Your task to perform on an android device: See recent photos Image 0: 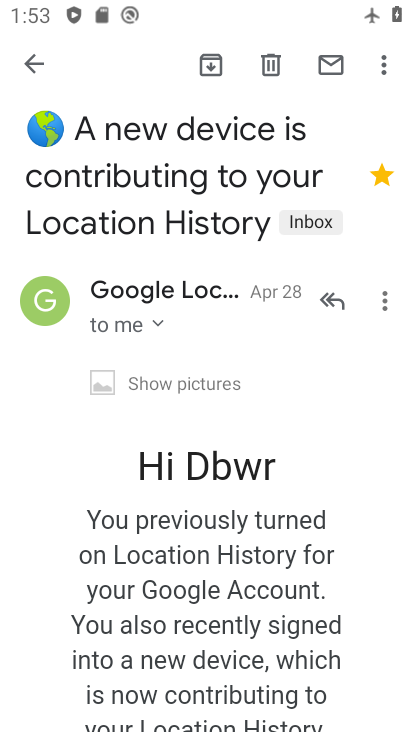
Step 0: press home button
Your task to perform on an android device: See recent photos Image 1: 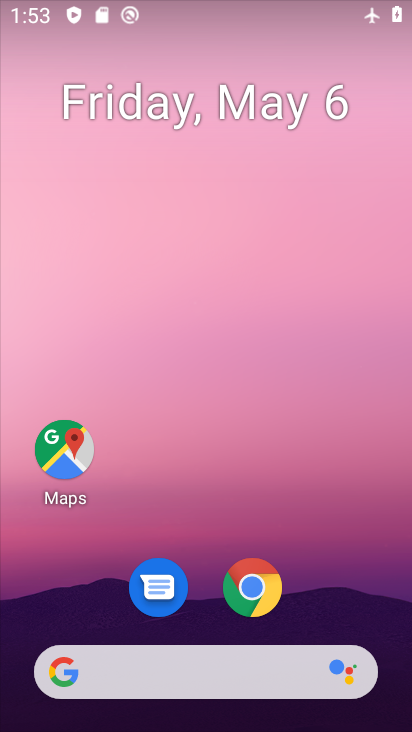
Step 1: drag from (312, 617) to (406, 13)
Your task to perform on an android device: See recent photos Image 2: 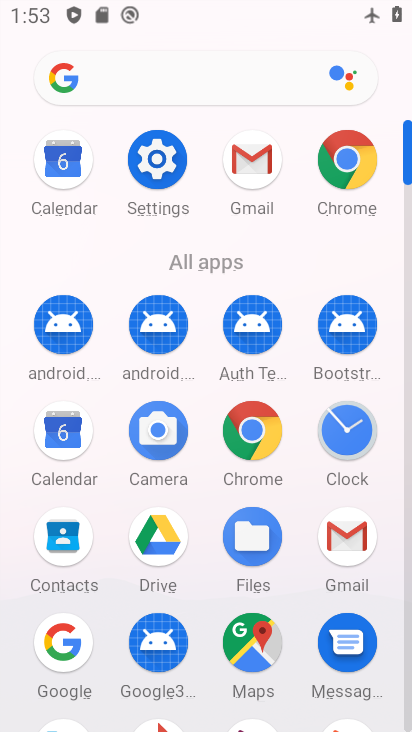
Step 2: drag from (208, 608) to (223, 356)
Your task to perform on an android device: See recent photos Image 3: 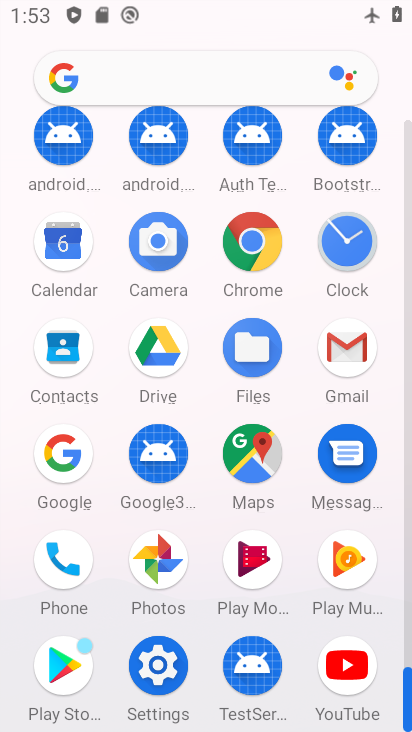
Step 3: click (150, 572)
Your task to perform on an android device: See recent photos Image 4: 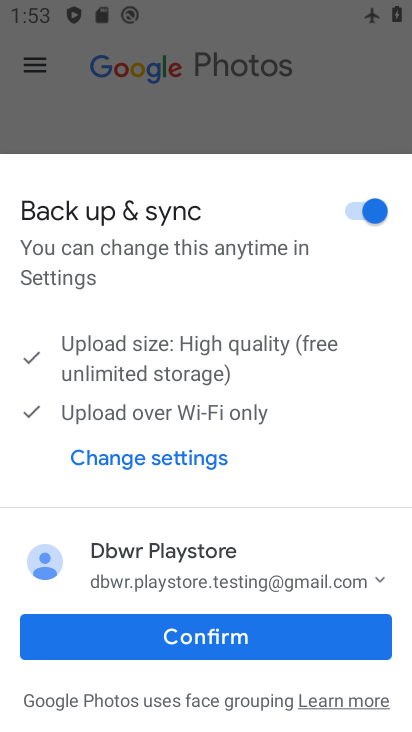
Step 4: click (233, 642)
Your task to perform on an android device: See recent photos Image 5: 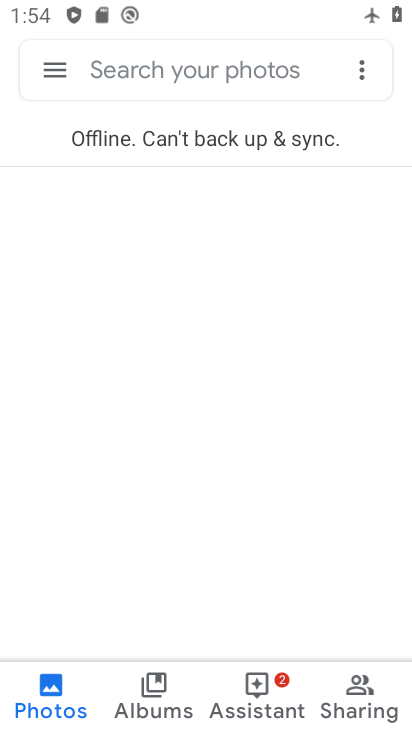
Step 5: task complete